Your task to perform on an android device: move a message to another label in the gmail app Image 0: 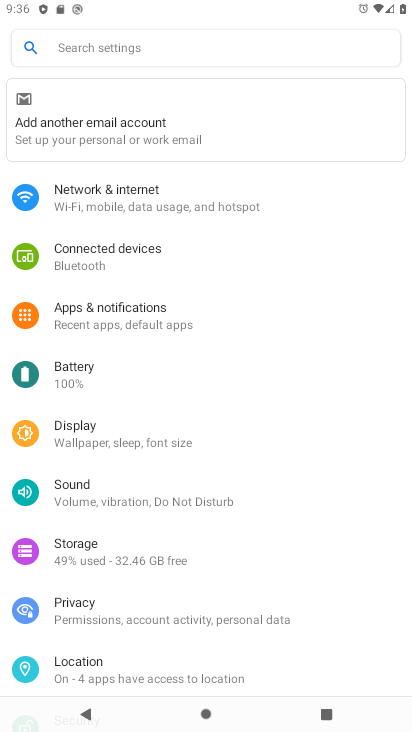
Step 0: press home button
Your task to perform on an android device: move a message to another label in the gmail app Image 1: 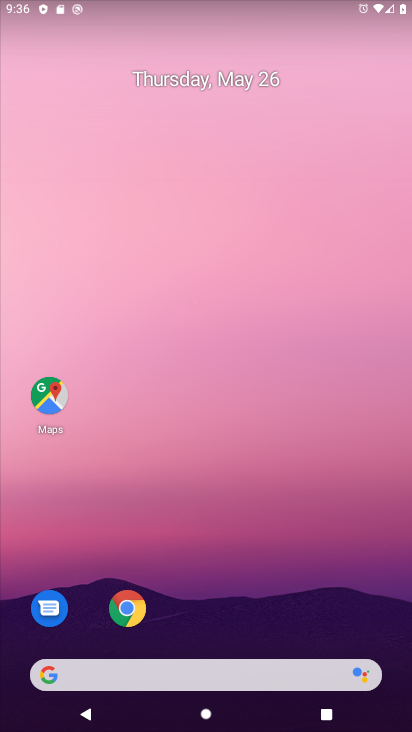
Step 1: drag from (259, 596) to (190, 0)
Your task to perform on an android device: move a message to another label in the gmail app Image 2: 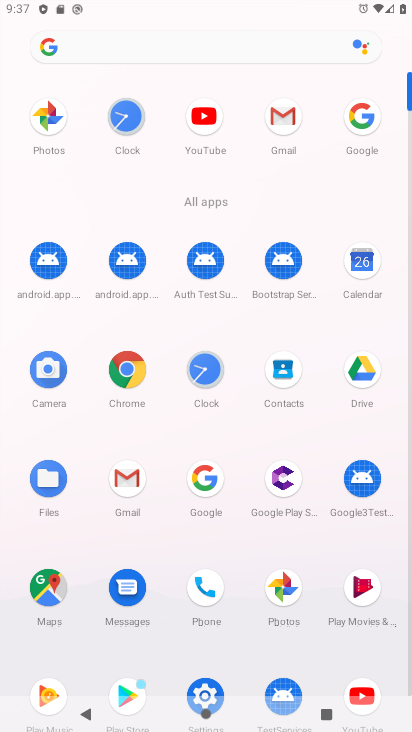
Step 2: click (130, 481)
Your task to perform on an android device: move a message to another label in the gmail app Image 3: 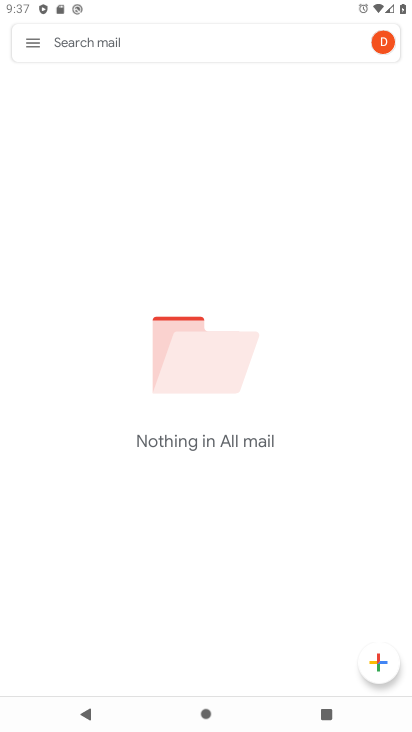
Step 3: click (28, 40)
Your task to perform on an android device: move a message to another label in the gmail app Image 4: 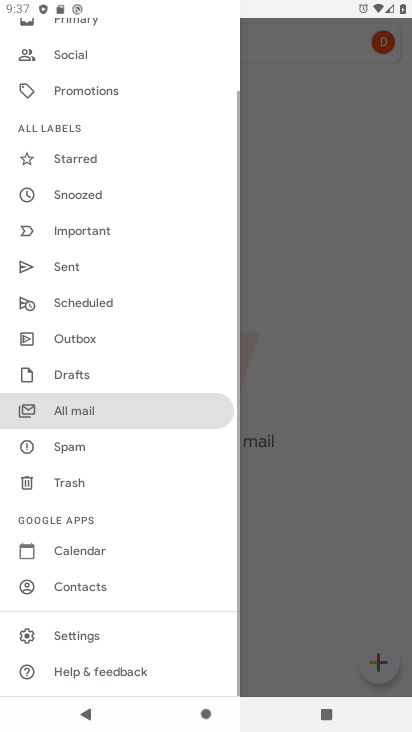
Step 4: click (116, 416)
Your task to perform on an android device: move a message to another label in the gmail app Image 5: 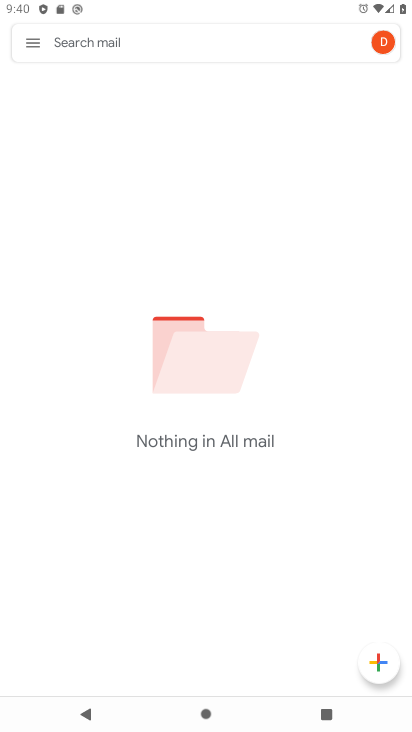
Step 5: task complete